Your task to perform on an android device: Open Chrome and go to settings Image 0: 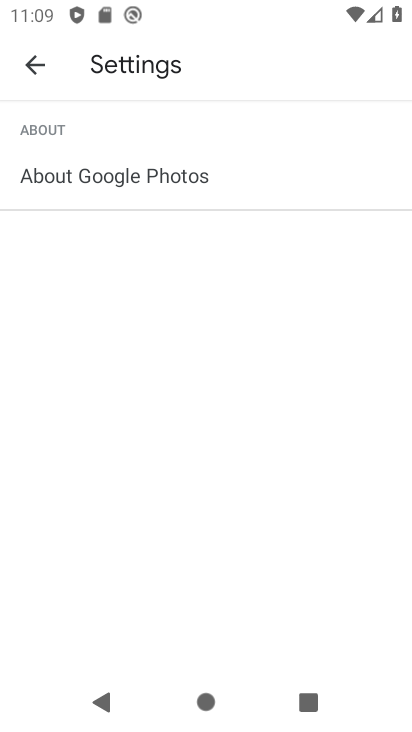
Step 0: press home button
Your task to perform on an android device: Open Chrome and go to settings Image 1: 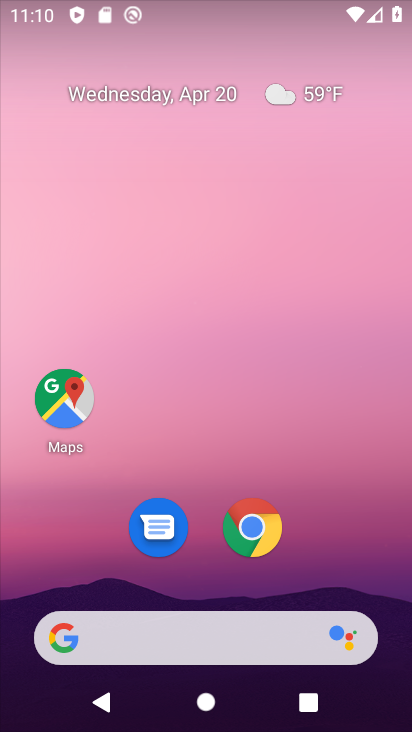
Step 1: click (257, 536)
Your task to perform on an android device: Open Chrome and go to settings Image 2: 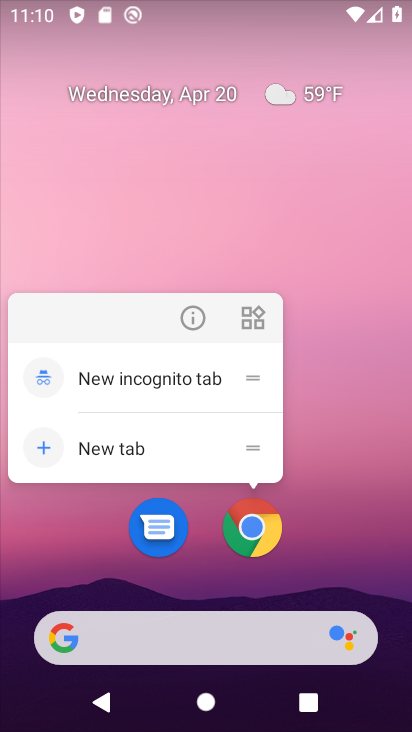
Step 2: click (270, 533)
Your task to perform on an android device: Open Chrome and go to settings Image 3: 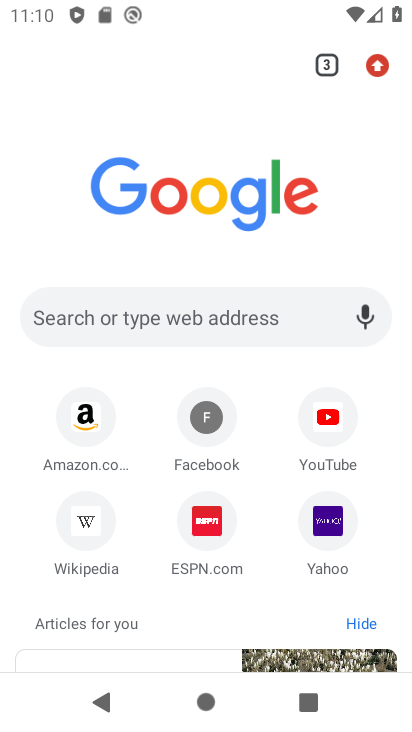
Step 3: task complete